Your task to perform on an android device: Go to Yahoo.com Image 0: 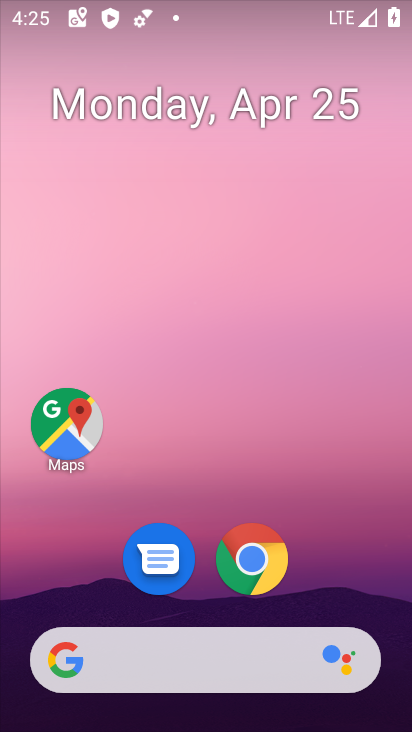
Step 0: click (252, 556)
Your task to perform on an android device: Go to Yahoo.com Image 1: 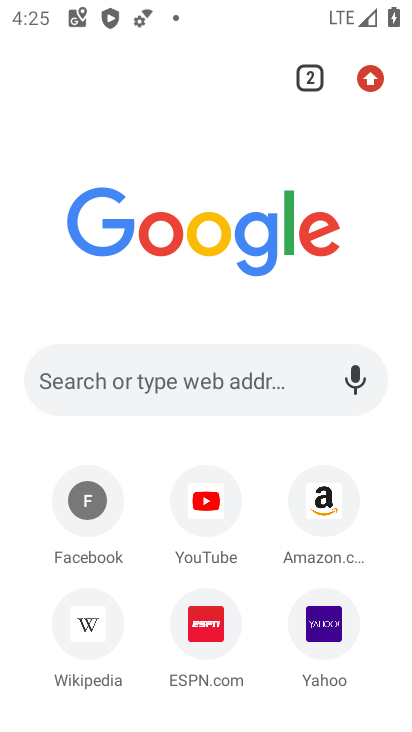
Step 1: click (328, 613)
Your task to perform on an android device: Go to Yahoo.com Image 2: 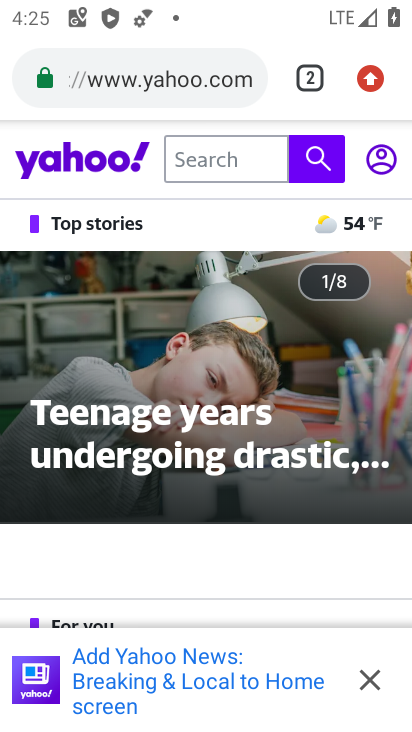
Step 2: task complete